Your task to perform on an android device: Go to accessibility settings Image 0: 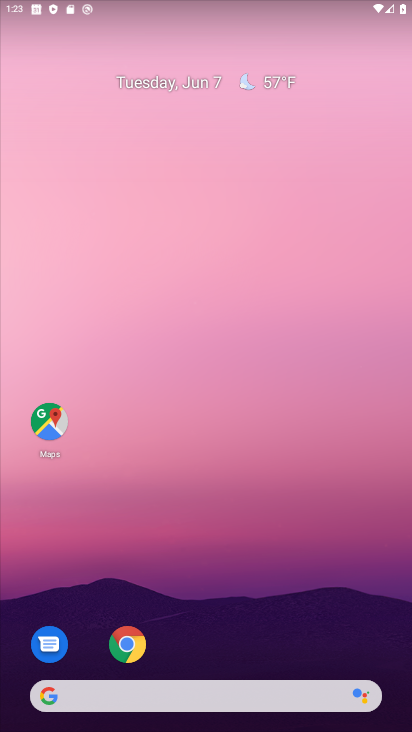
Step 0: drag from (268, 588) to (169, 26)
Your task to perform on an android device: Go to accessibility settings Image 1: 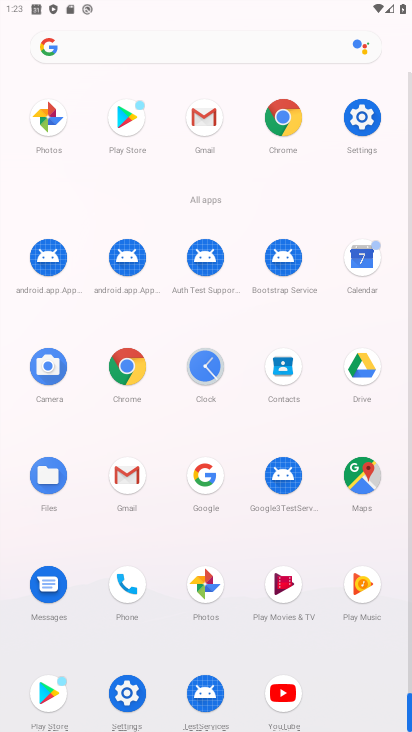
Step 1: click (121, 692)
Your task to perform on an android device: Go to accessibility settings Image 2: 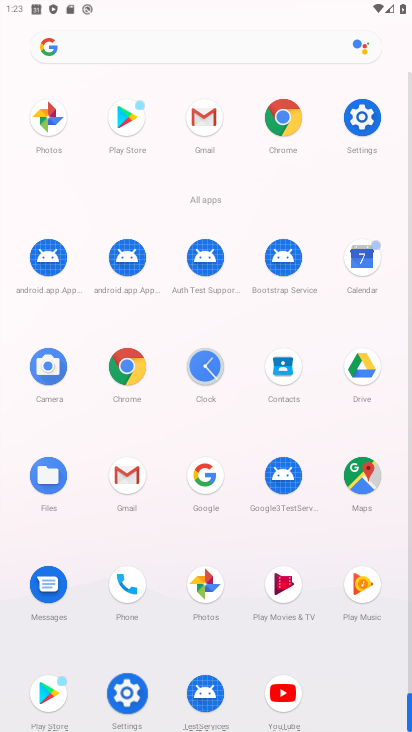
Step 2: click (121, 692)
Your task to perform on an android device: Go to accessibility settings Image 3: 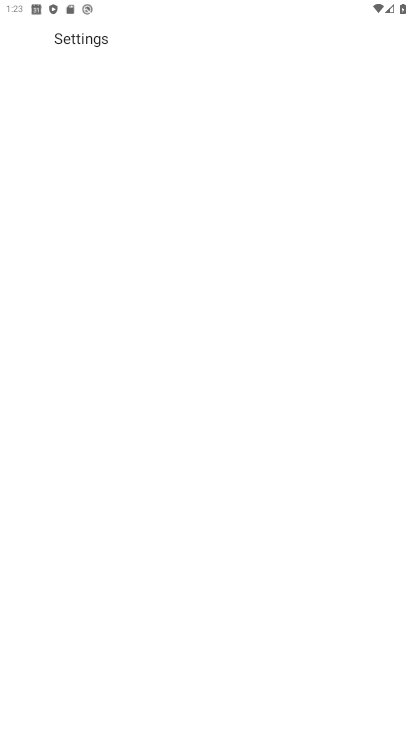
Step 3: click (121, 692)
Your task to perform on an android device: Go to accessibility settings Image 4: 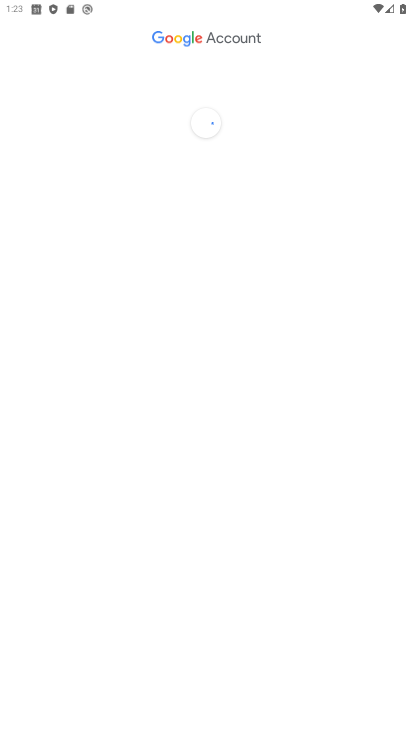
Step 4: click (77, 636)
Your task to perform on an android device: Go to accessibility settings Image 5: 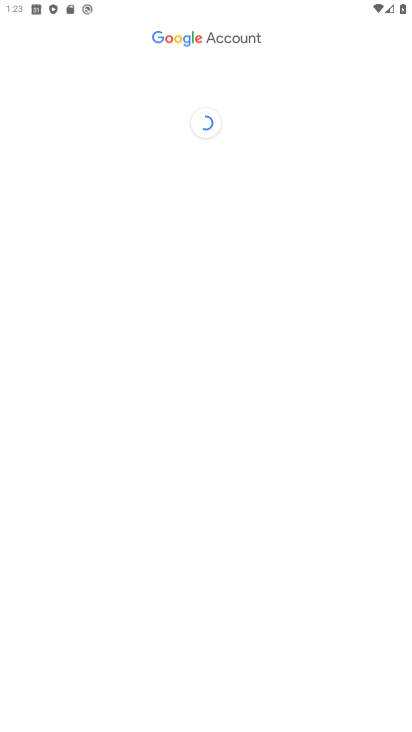
Step 5: click (78, 636)
Your task to perform on an android device: Go to accessibility settings Image 6: 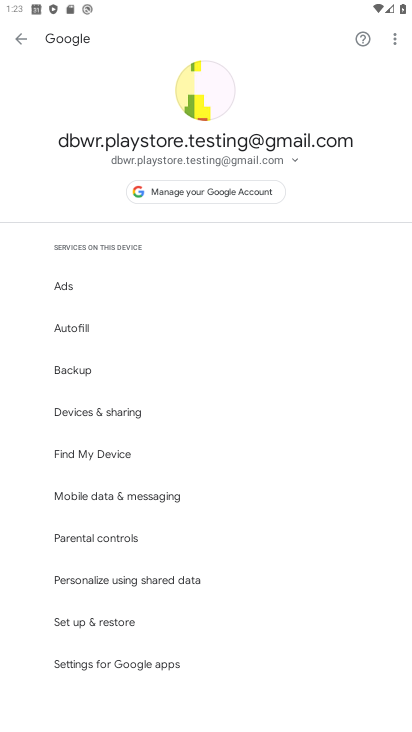
Step 6: click (13, 39)
Your task to perform on an android device: Go to accessibility settings Image 7: 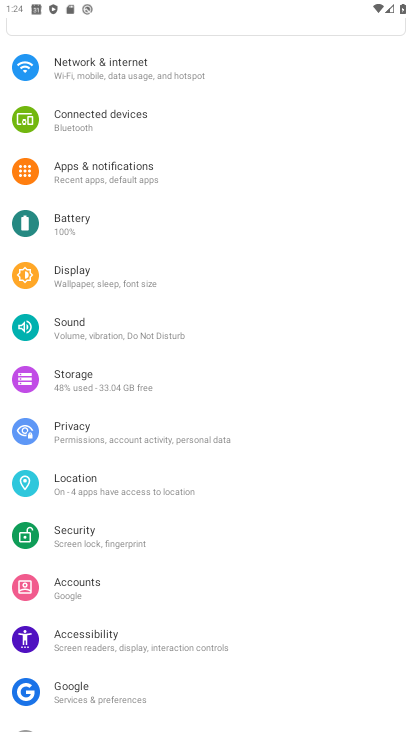
Step 7: click (81, 638)
Your task to perform on an android device: Go to accessibility settings Image 8: 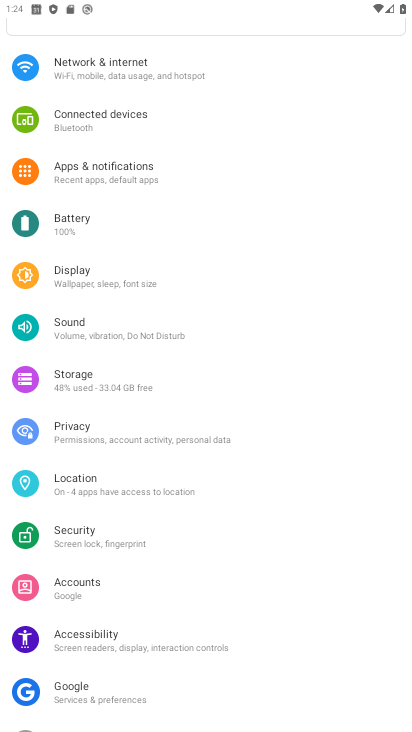
Step 8: click (82, 638)
Your task to perform on an android device: Go to accessibility settings Image 9: 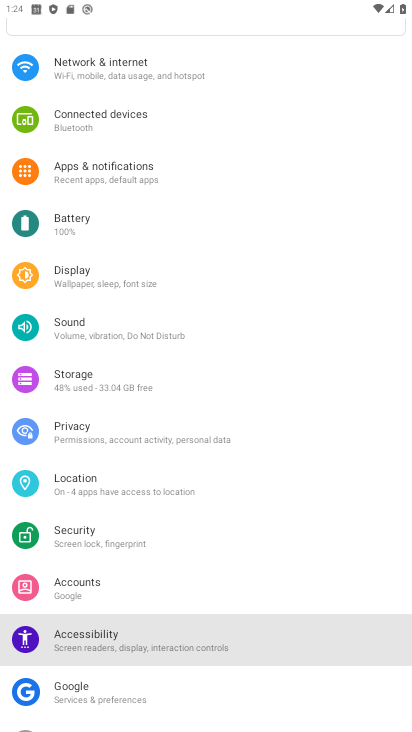
Step 9: click (83, 638)
Your task to perform on an android device: Go to accessibility settings Image 10: 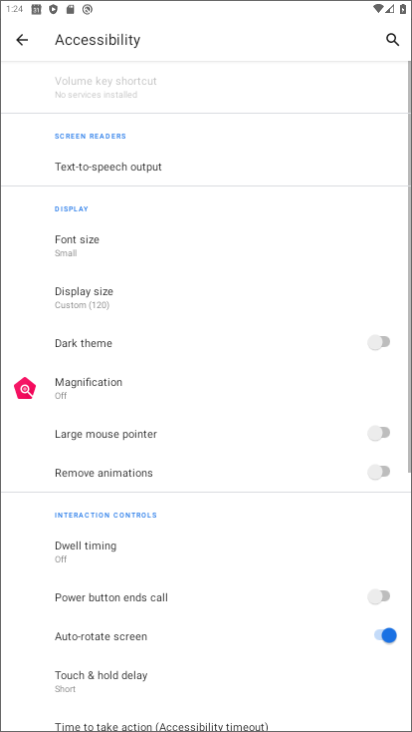
Step 10: click (84, 637)
Your task to perform on an android device: Go to accessibility settings Image 11: 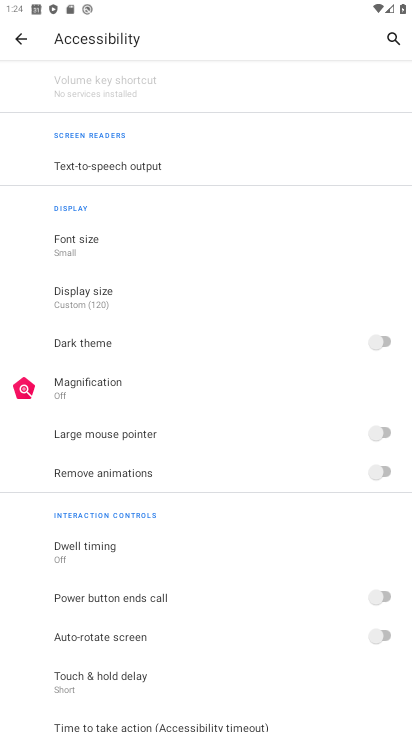
Step 11: task complete